Your task to perform on an android device: Open Yahoo.com Image 0: 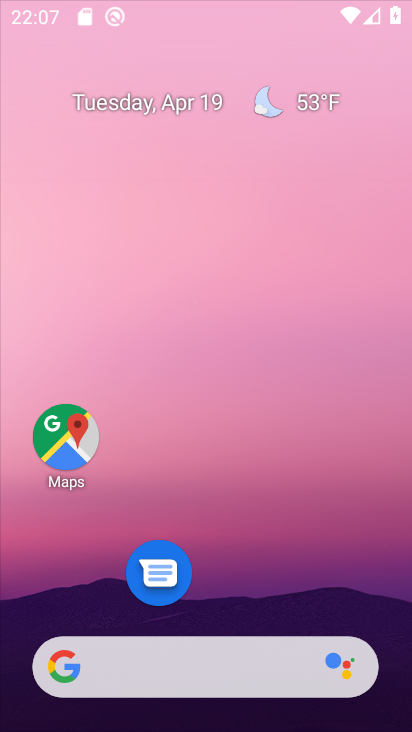
Step 0: click (291, 76)
Your task to perform on an android device: Open Yahoo.com Image 1: 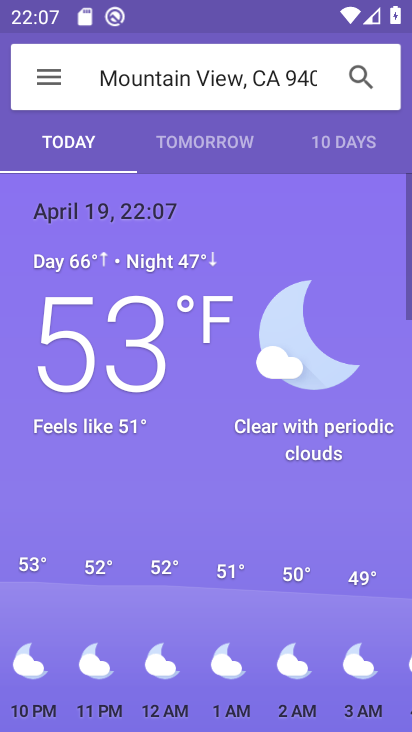
Step 1: press home button
Your task to perform on an android device: Open Yahoo.com Image 2: 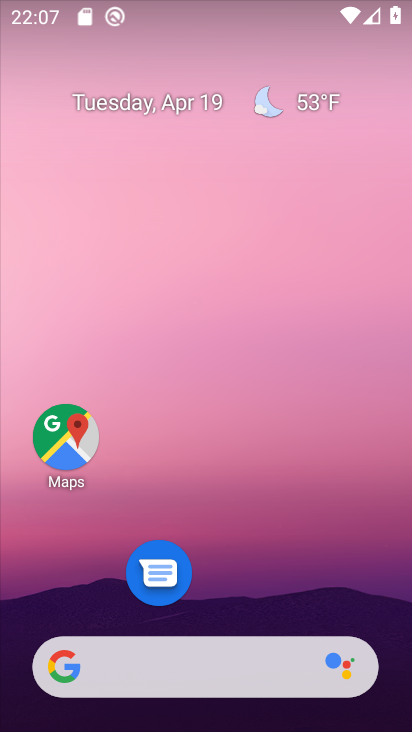
Step 2: drag from (250, 331) to (265, 88)
Your task to perform on an android device: Open Yahoo.com Image 3: 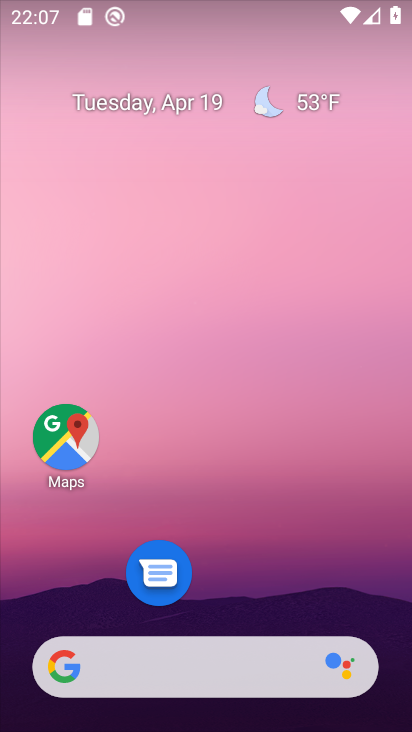
Step 3: drag from (235, 603) to (266, 123)
Your task to perform on an android device: Open Yahoo.com Image 4: 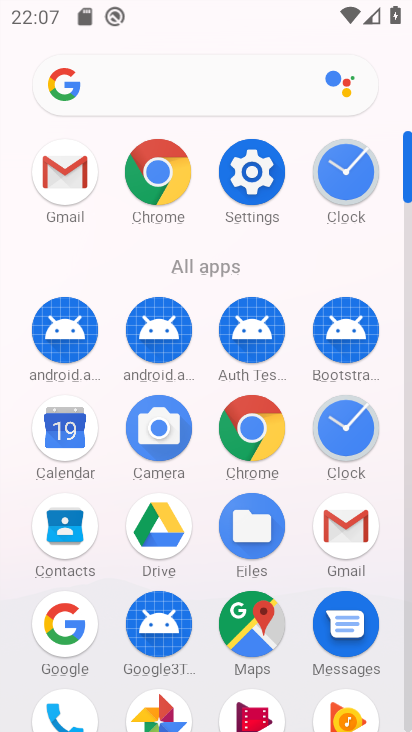
Step 4: click (152, 164)
Your task to perform on an android device: Open Yahoo.com Image 5: 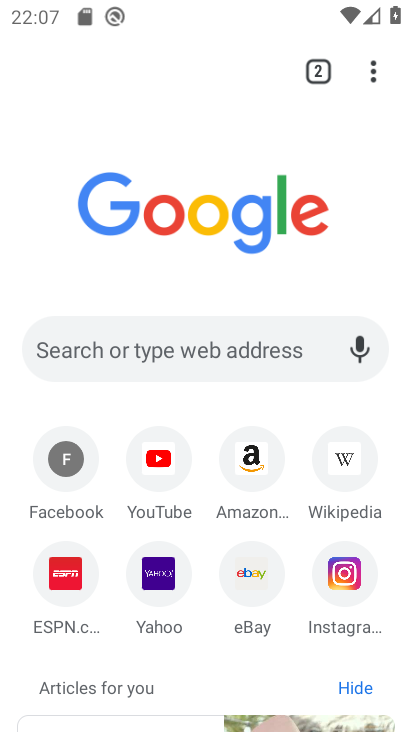
Step 5: click (157, 571)
Your task to perform on an android device: Open Yahoo.com Image 6: 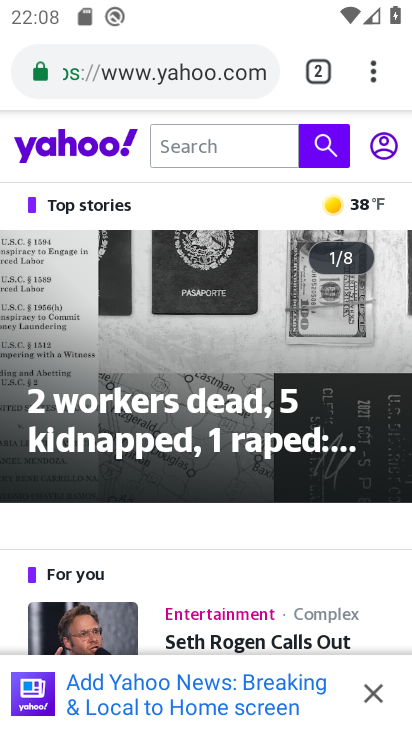
Step 6: click (372, 695)
Your task to perform on an android device: Open Yahoo.com Image 7: 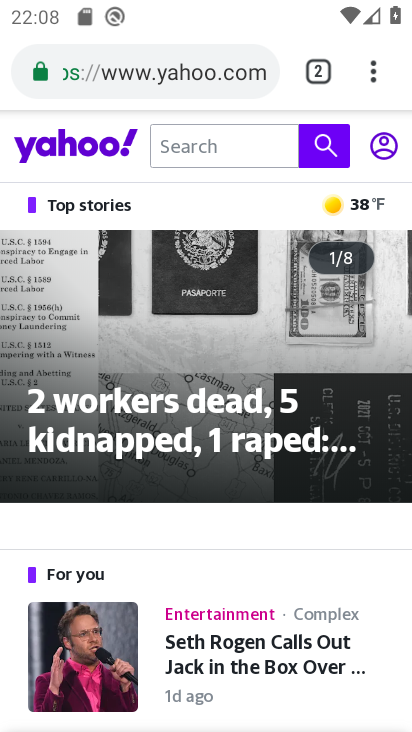
Step 7: task complete